Your task to perform on an android device: Go to CNN.com Image 0: 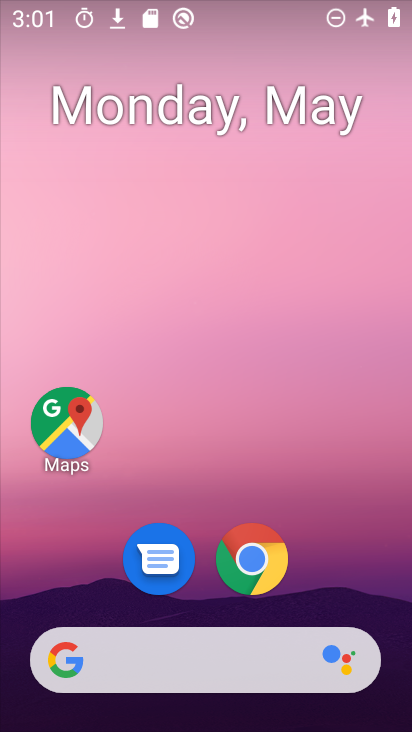
Step 0: drag from (169, 605) to (254, 103)
Your task to perform on an android device: Go to CNN.com Image 1: 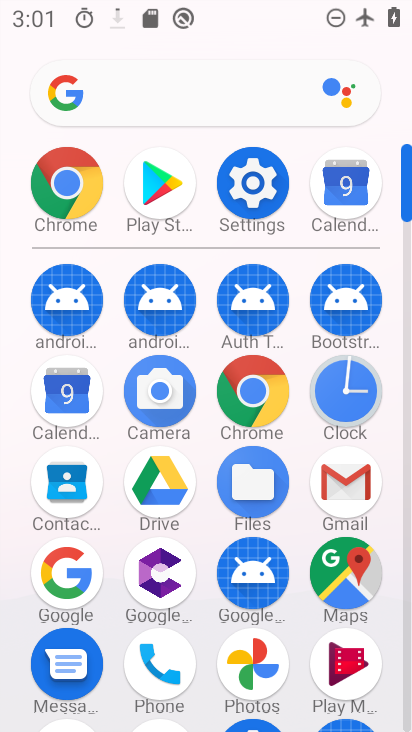
Step 1: click (58, 173)
Your task to perform on an android device: Go to CNN.com Image 2: 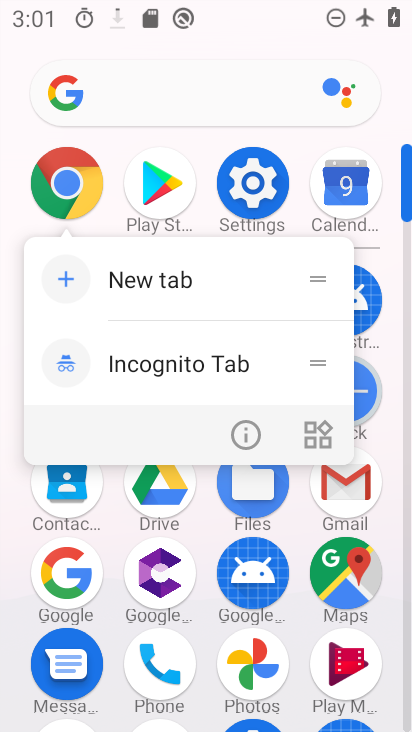
Step 2: click (225, 438)
Your task to perform on an android device: Go to CNN.com Image 3: 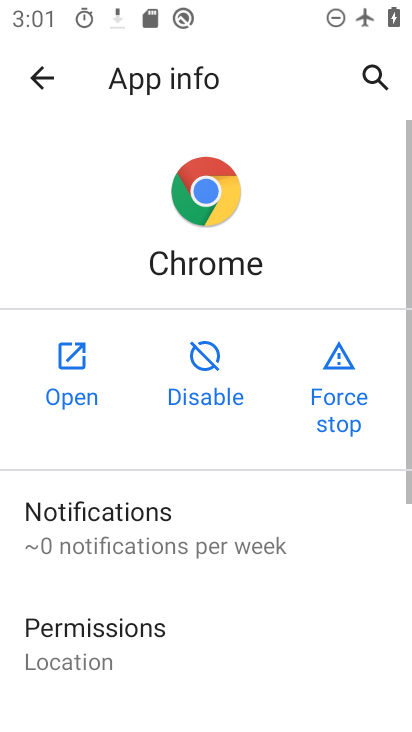
Step 3: click (68, 355)
Your task to perform on an android device: Go to CNN.com Image 4: 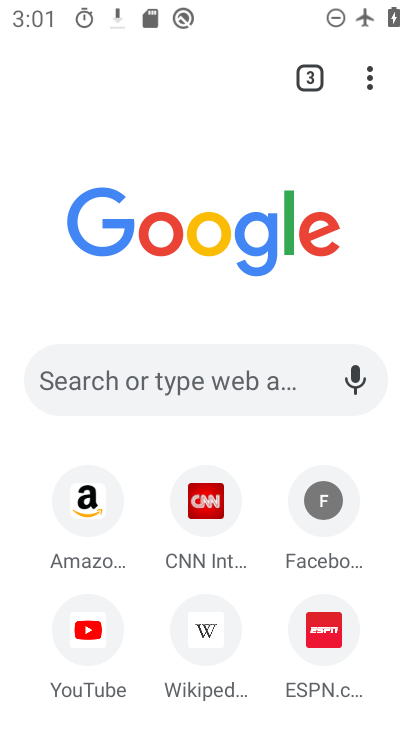
Step 4: click (151, 367)
Your task to perform on an android device: Go to CNN.com Image 5: 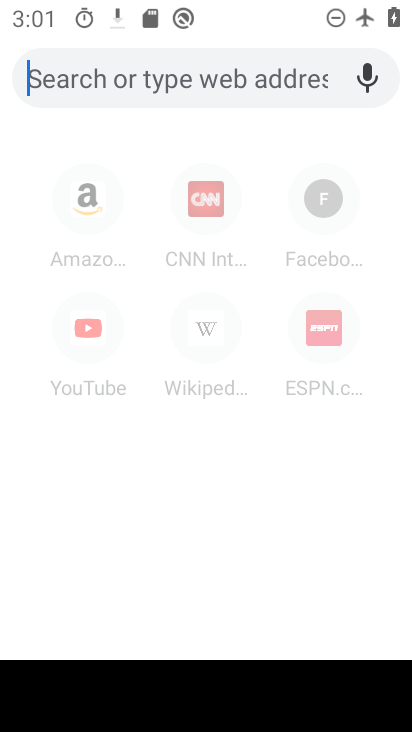
Step 5: type "cnn"
Your task to perform on an android device: Go to CNN.com Image 6: 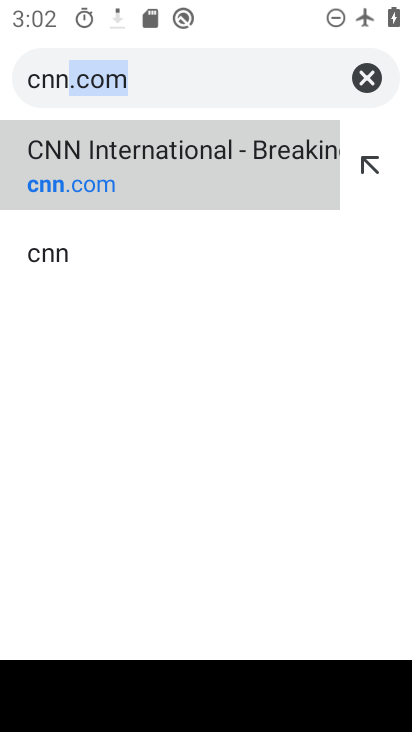
Step 6: click (88, 180)
Your task to perform on an android device: Go to CNN.com Image 7: 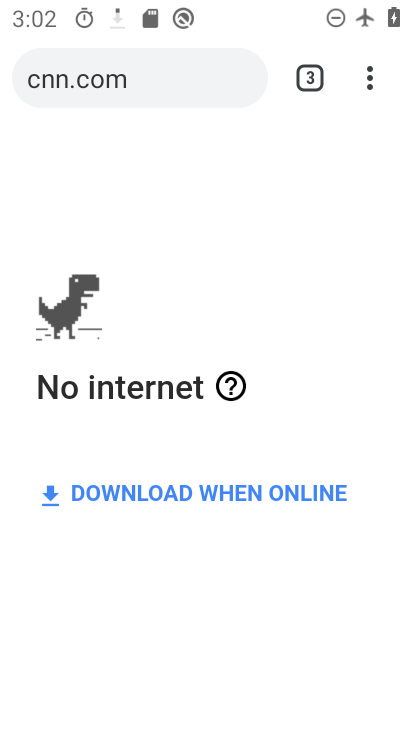
Step 7: task complete